Your task to perform on an android device: Go to display settings Image 0: 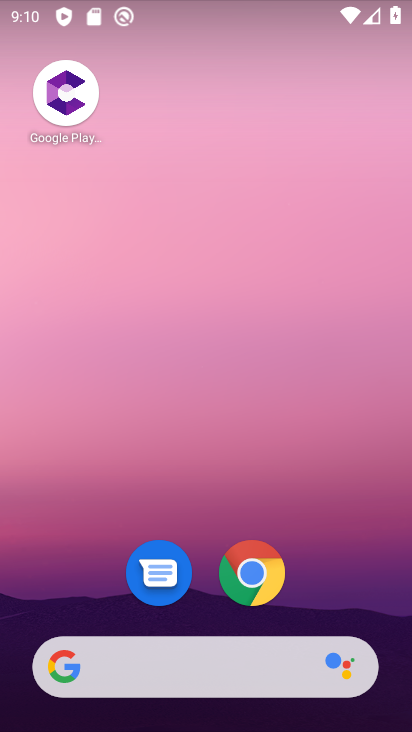
Step 0: drag from (344, 545) to (192, 95)
Your task to perform on an android device: Go to display settings Image 1: 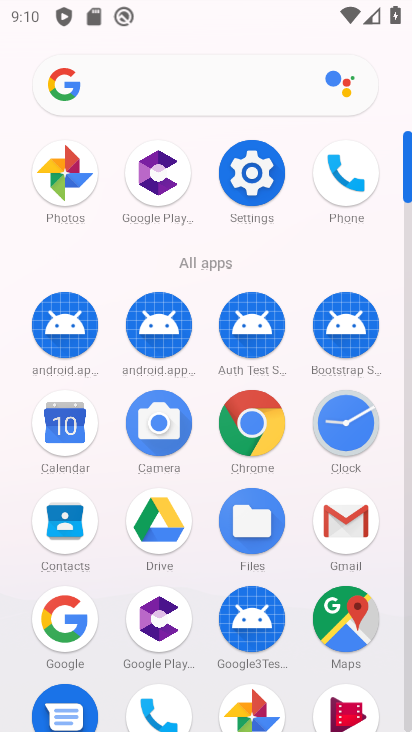
Step 1: click (247, 163)
Your task to perform on an android device: Go to display settings Image 2: 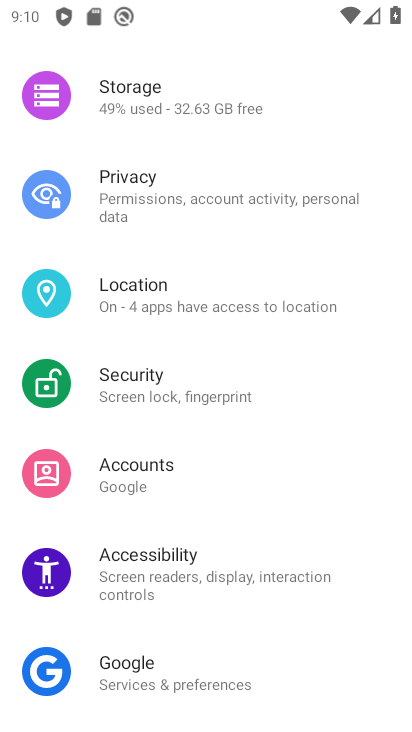
Step 2: drag from (208, 511) to (170, 238)
Your task to perform on an android device: Go to display settings Image 3: 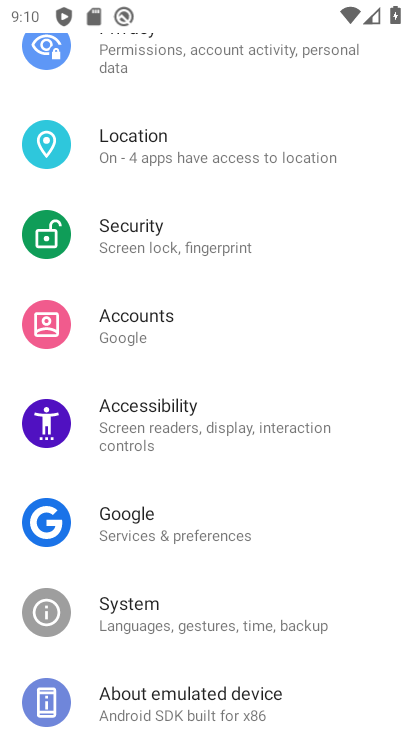
Step 3: drag from (231, 195) to (270, 657)
Your task to perform on an android device: Go to display settings Image 4: 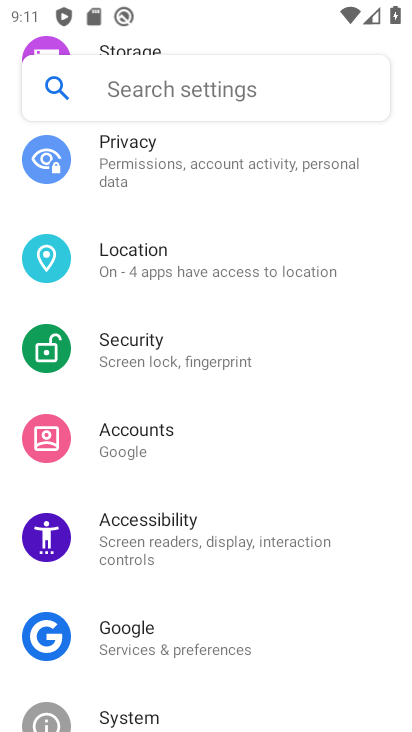
Step 4: drag from (193, 213) to (275, 583)
Your task to perform on an android device: Go to display settings Image 5: 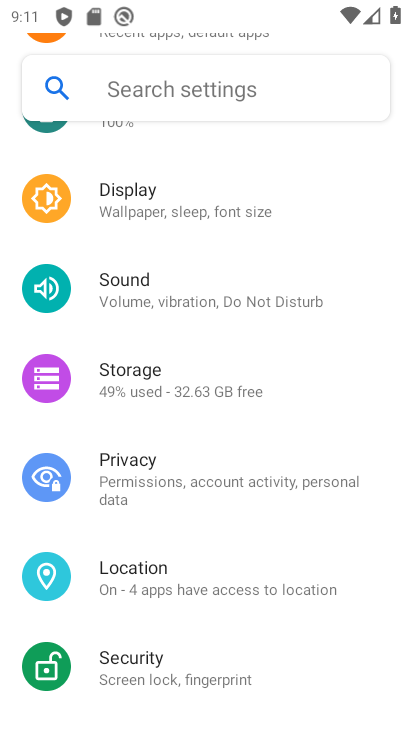
Step 5: drag from (208, 515) to (204, 474)
Your task to perform on an android device: Go to display settings Image 6: 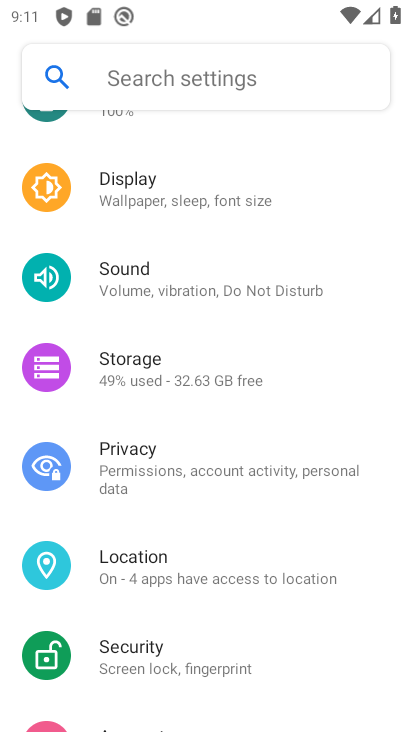
Step 6: click (131, 173)
Your task to perform on an android device: Go to display settings Image 7: 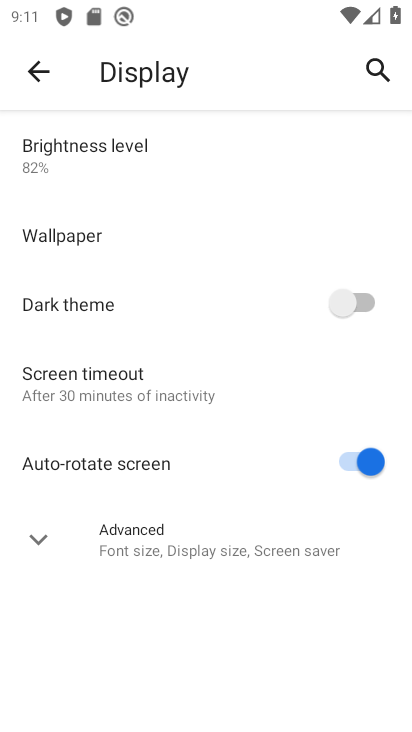
Step 7: task complete